Your task to perform on an android device: Open location settings Image 0: 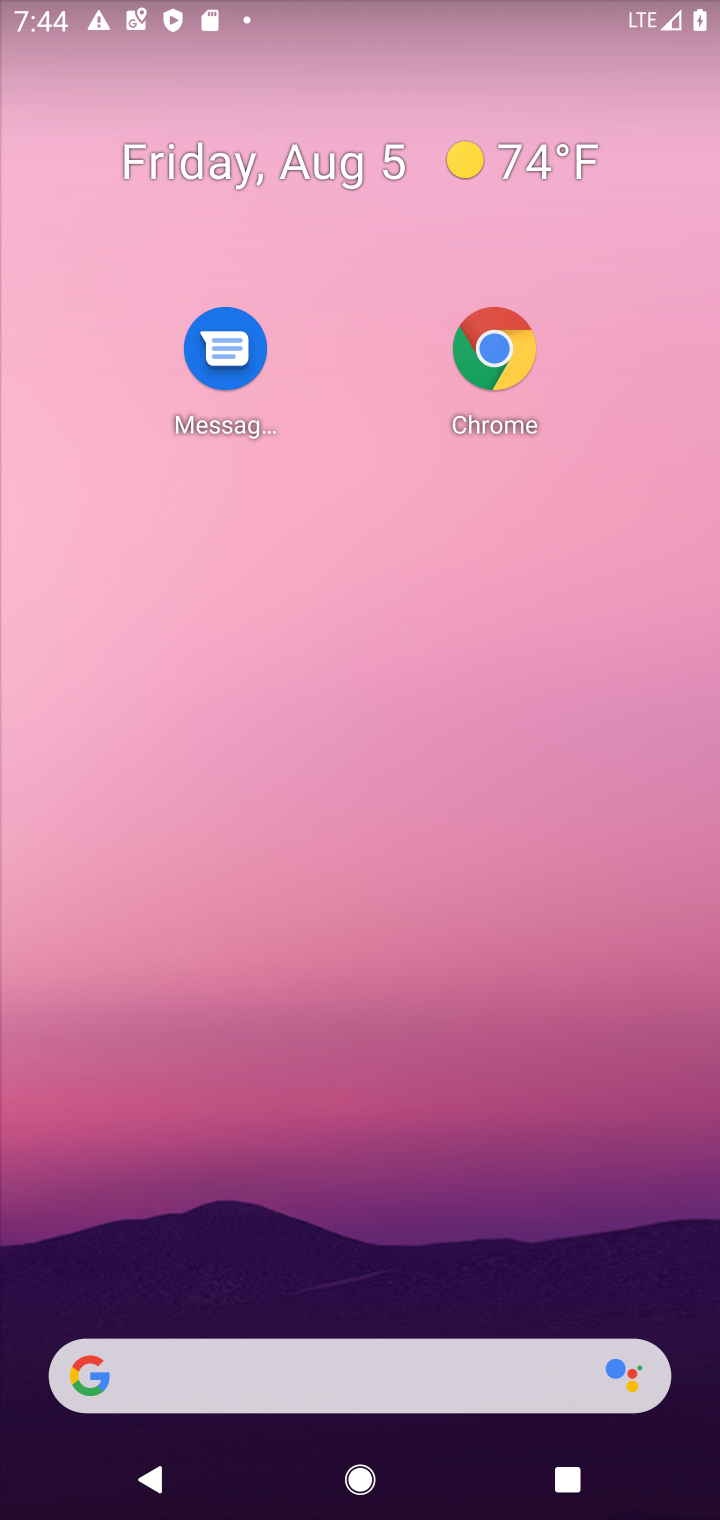
Step 0: press home button
Your task to perform on an android device: Open location settings Image 1: 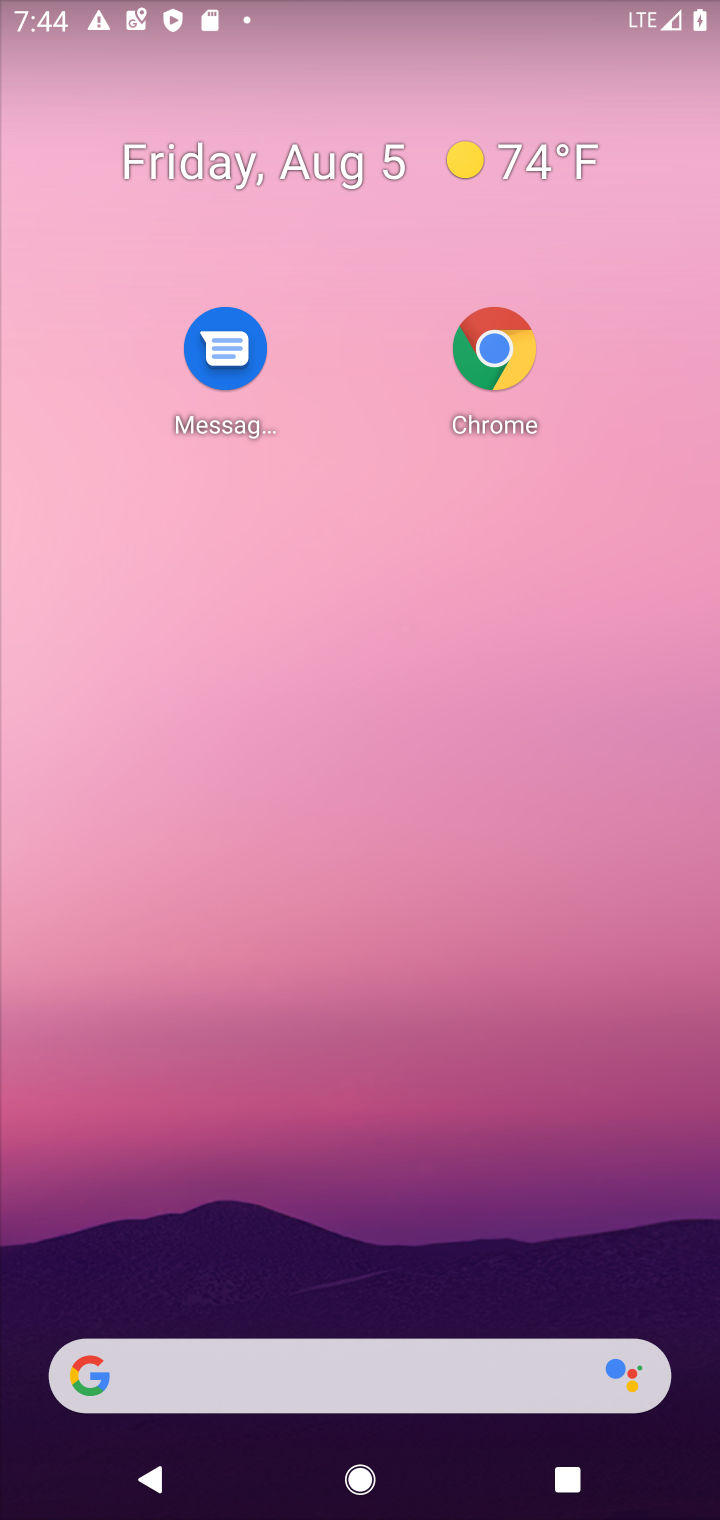
Step 1: drag from (492, 1258) to (461, 560)
Your task to perform on an android device: Open location settings Image 2: 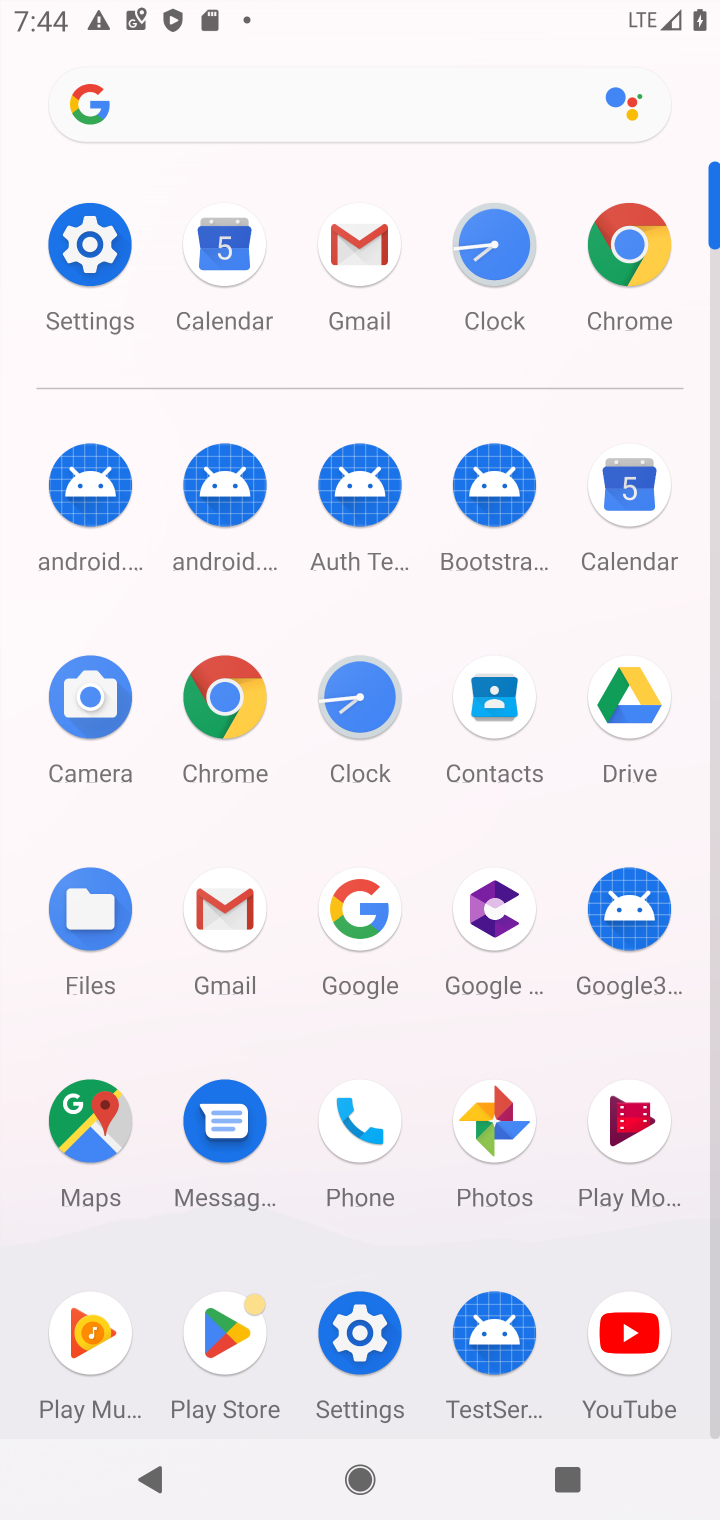
Step 2: click (82, 277)
Your task to perform on an android device: Open location settings Image 3: 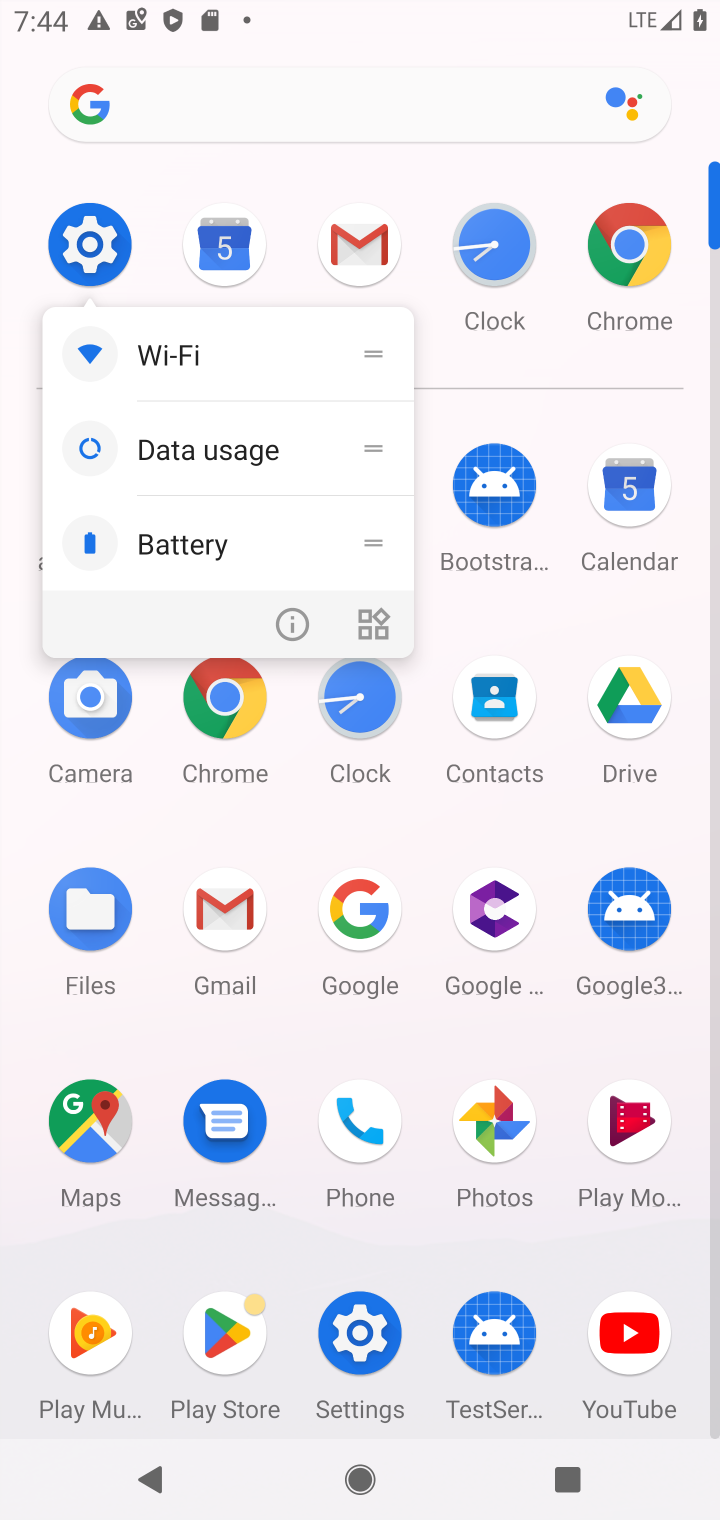
Step 3: click (95, 233)
Your task to perform on an android device: Open location settings Image 4: 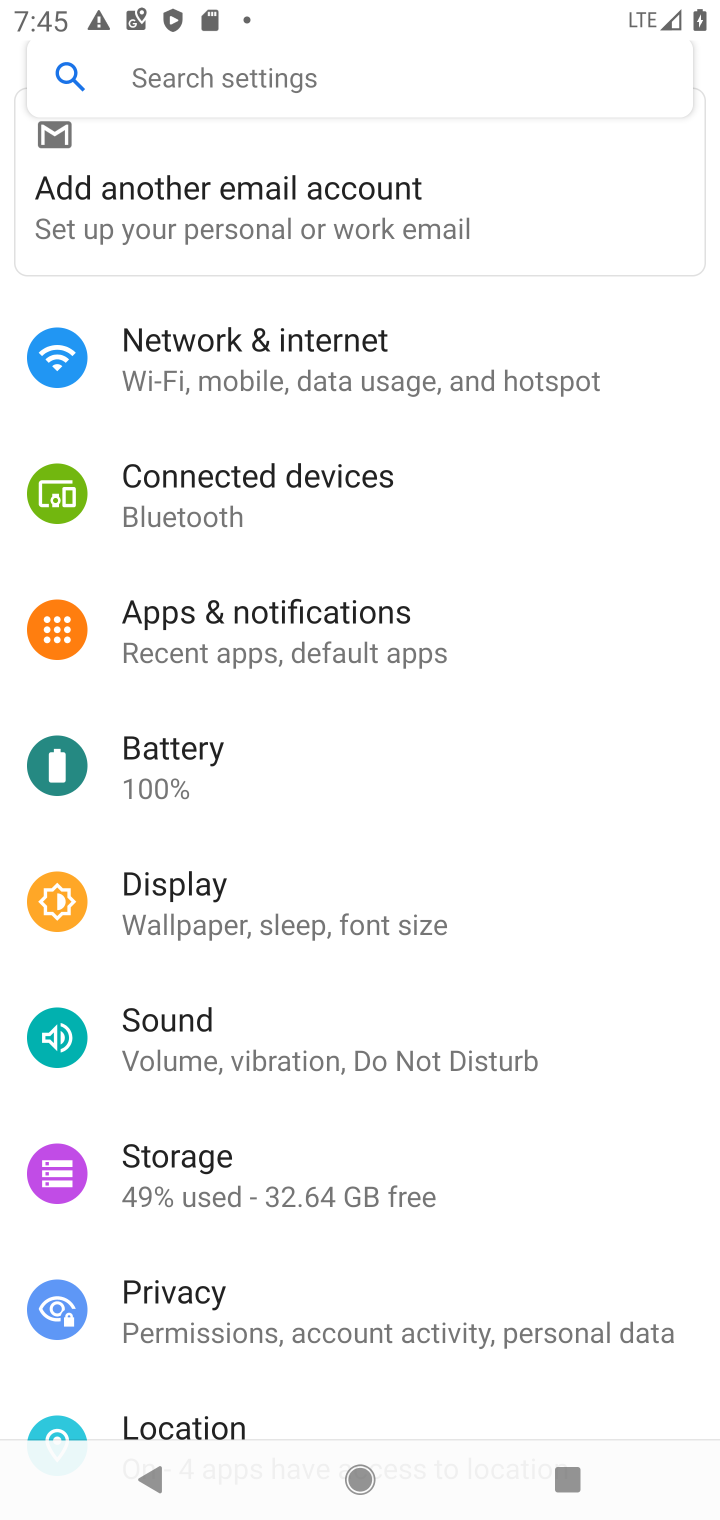
Step 4: click (173, 1418)
Your task to perform on an android device: Open location settings Image 5: 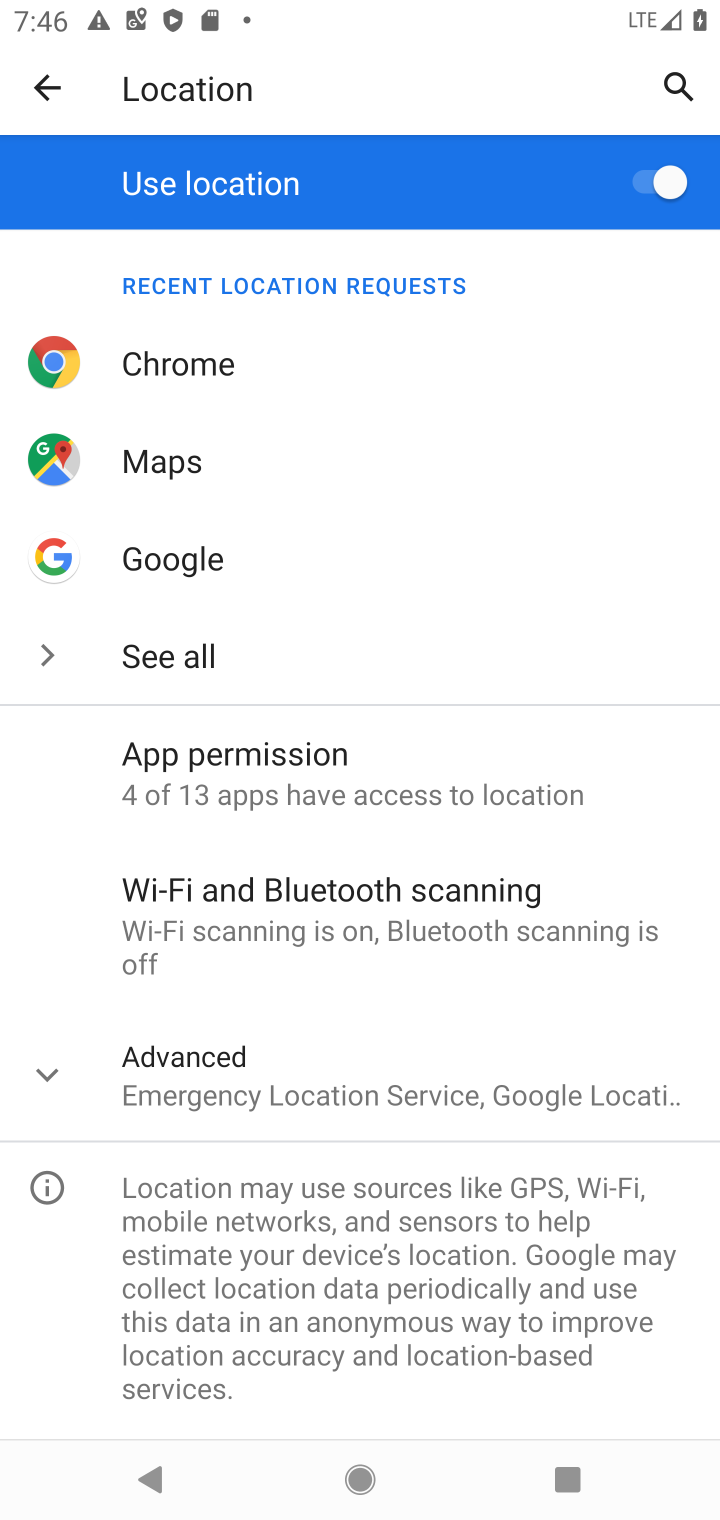
Step 5: task complete